Your task to perform on an android device: change the clock display to show seconds Image 0: 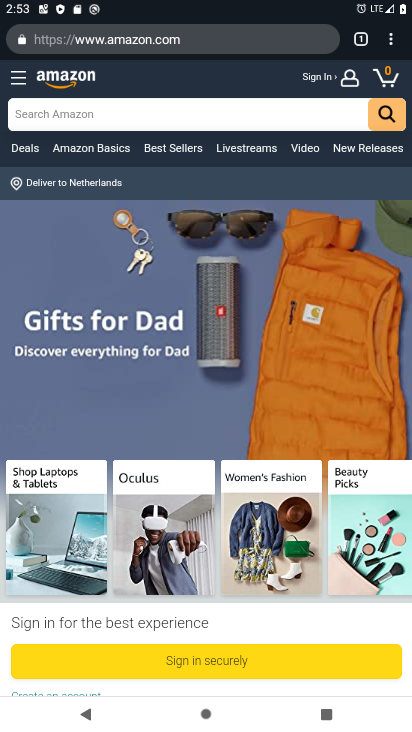
Step 0: press home button
Your task to perform on an android device: change the clock display to show seconds Image 1: 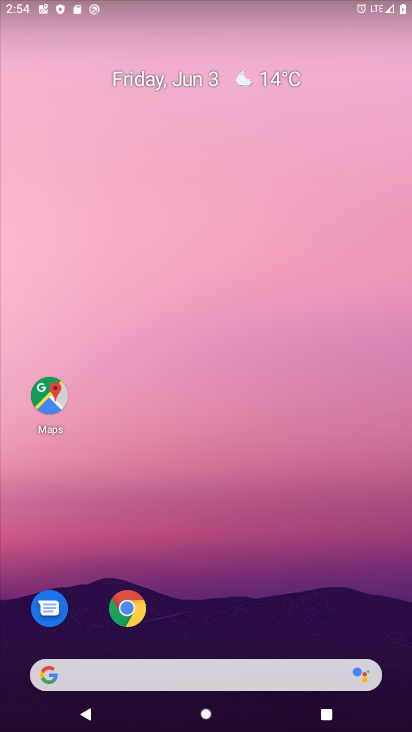
Step 1: drag from (233, 681) to (260, 81)
Your task to perform on an android device: change the clock display to show seconds Image 2: 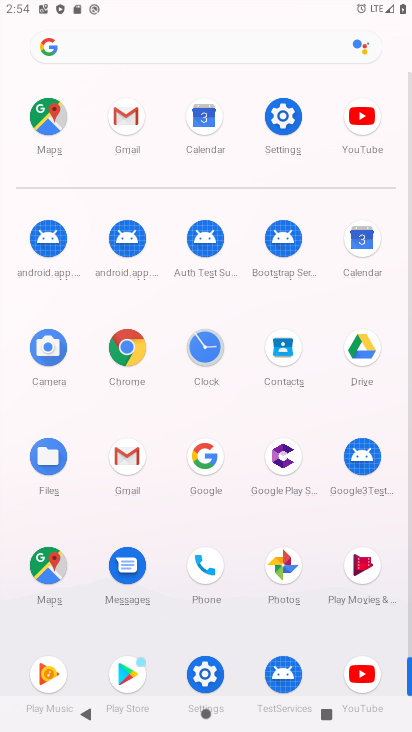
Step 2: click (201, 357)
Your task to perform on an android device: change the clock display to show seconds Image 3: 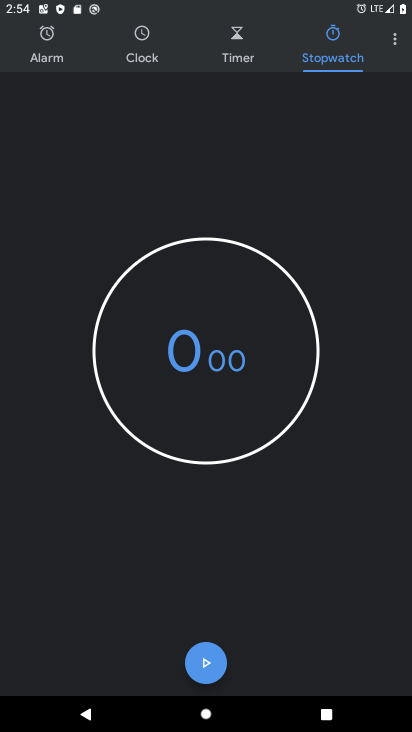
Step 3: click (397, 36)
Your task to perform on an android device: change the clock display to show seconds Image 4: 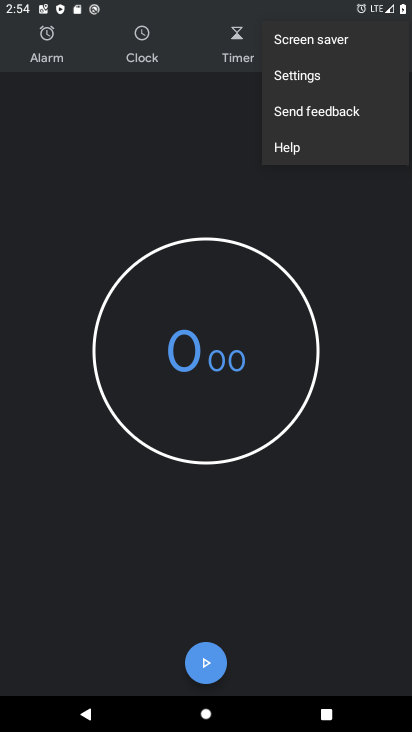
Step 4: click (315, 77)
Your task to perform on an android device: change the clock display to show seconds Image 5: 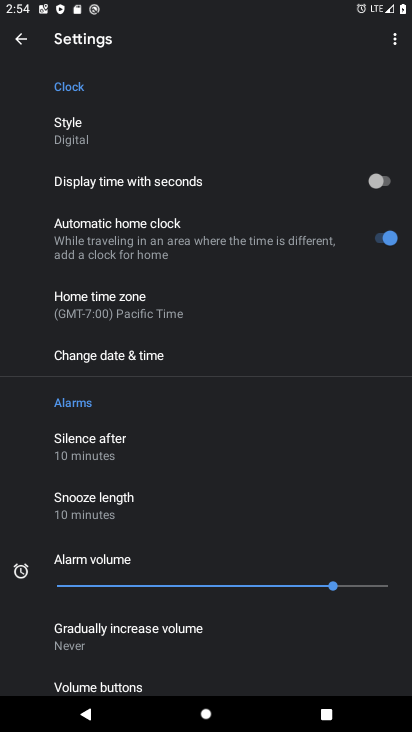
Step 5: click (363, 181)
Your task to perform on an android device: change the clock display to show seconds Image 6: 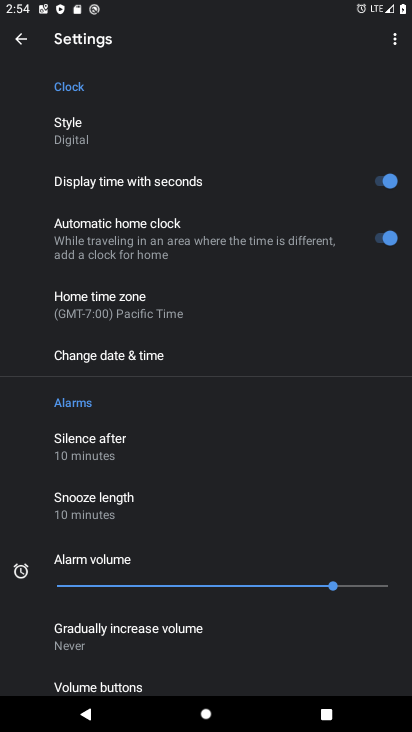
Step 6: task complete